Your task to perform on an android device: snooze an email in the gmail app Image 0: 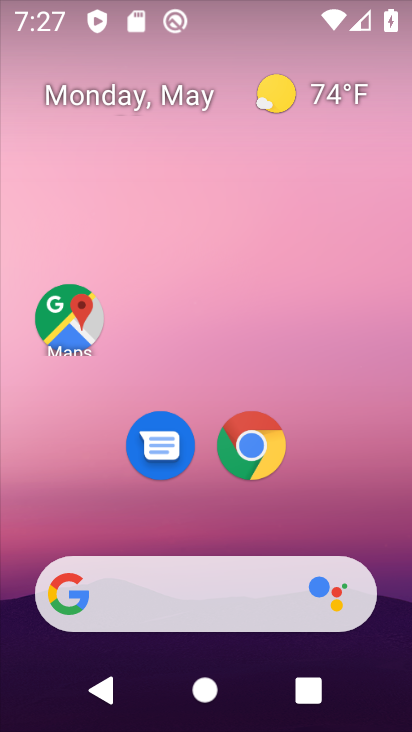
Step 0: press home button
Your task to perform on an android device: snooze an email in the gmail app Image 1: 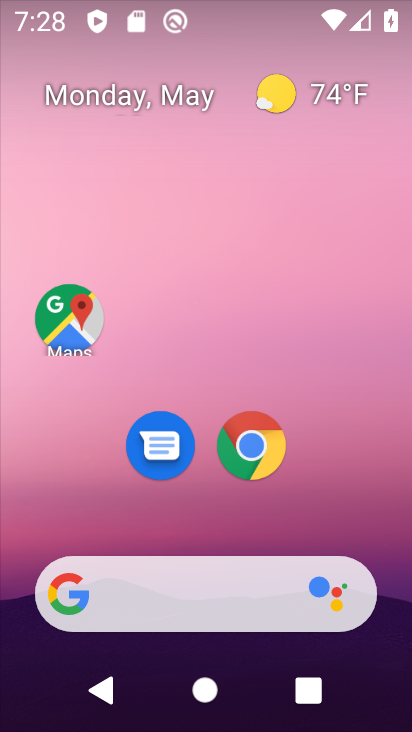
Step 1: drag from (161, 586) to (352, 74)
Your task to perform on an android device: snooze an email in the gmail app Image 2: 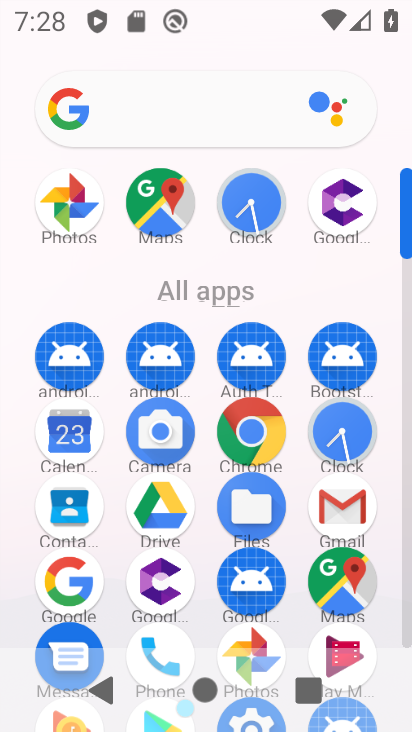
Step 2: click (335, 509)
Your task to perform on an android device: snooze an email in the gmail app Image 3: 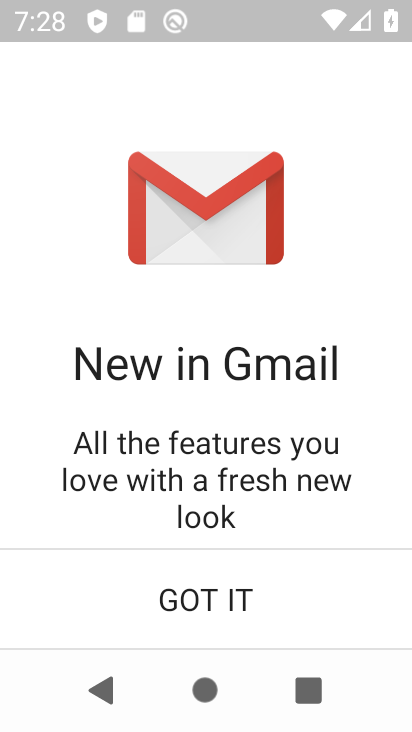
Step 3: click (226, 603)
Your task to perform on an android device: snooze an email in the gmail app Image 4: 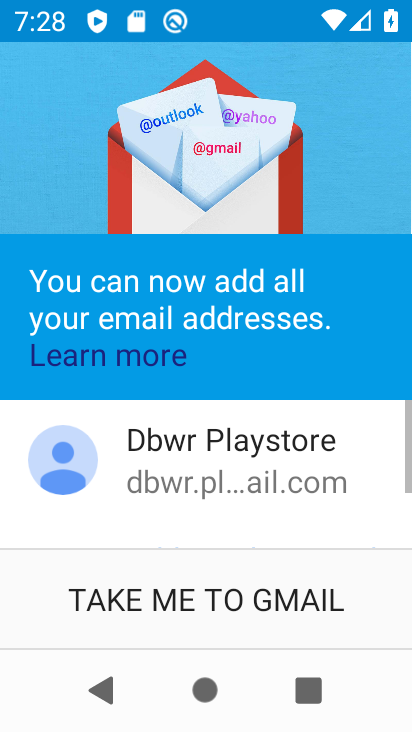
Step 4: click (226, 603)
Your task to perform on an android device: snooze an email in the gmail app Image 5: 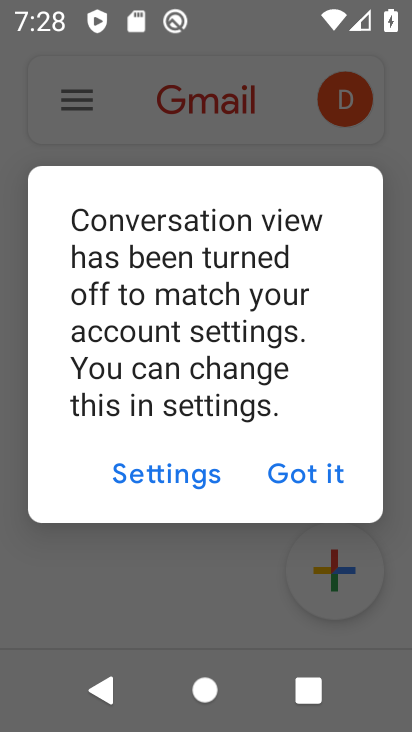
Step 5: click (283, 480)
Your task to perform on an android device: snooze an email in the gmail app Image 6: 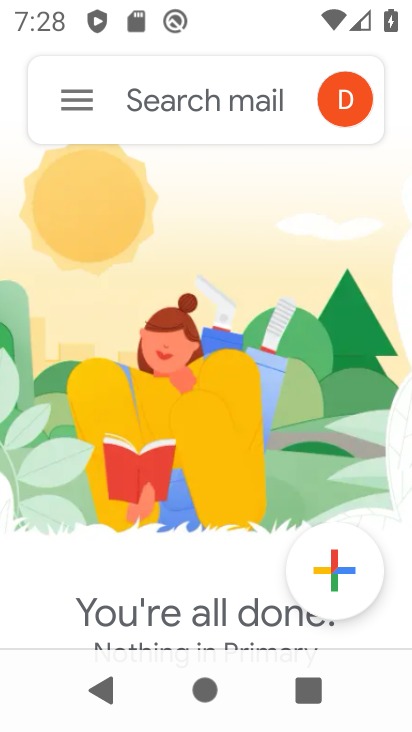
Step 6: task complete